Your task to perform on an android device: check android version Image 0: 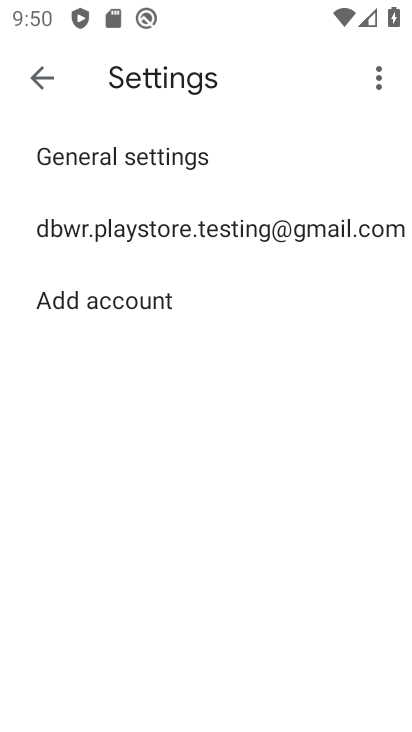
Step 0: press home button
Your task to perform on an android device: check android version Image 1: 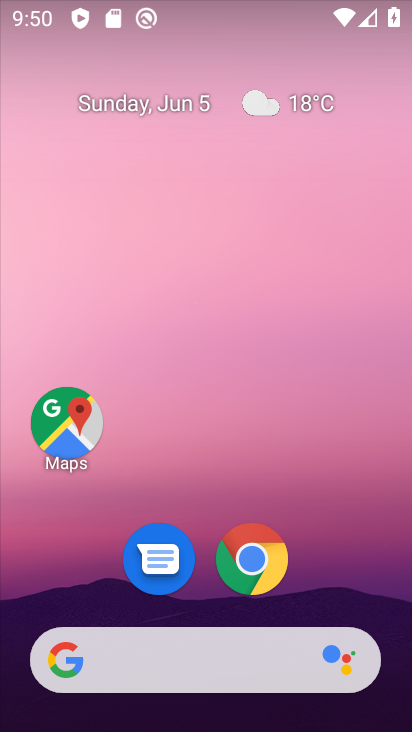
Step 1: drag from (346, 560) to (343, 89)
Your task to perform on an android device: check android version Image 2: 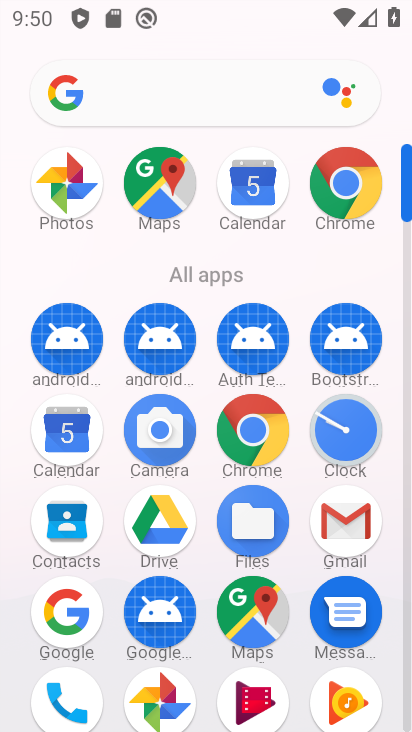
Step 2: drag from (199, 482) to (217, 126)
Your task to perform on an android device: check android version Image 3: 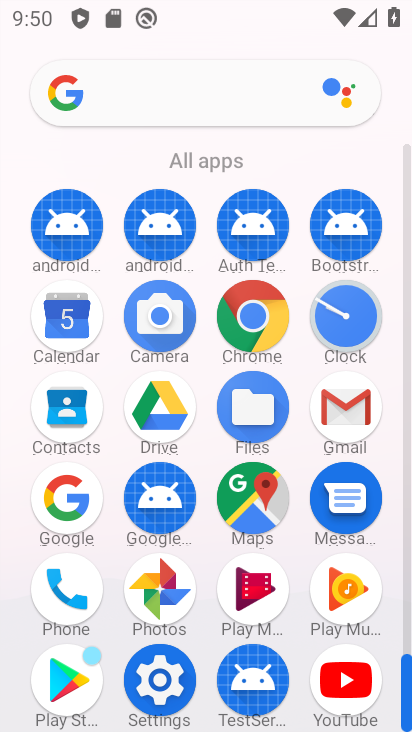
Step 3: click (159, 690)
Your task to perform on an android device: check android version Image 4: 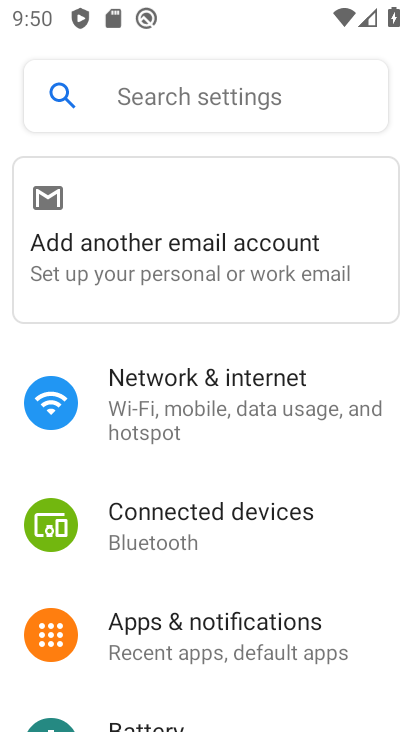
Step 4: drag from (347, 668) to (328, 296)
Your task to perform on an android device: check android version Image 5: 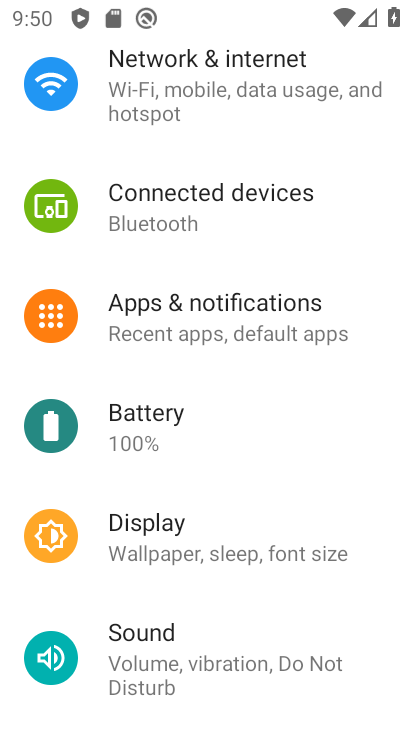
Step 5: drag from (352, 695) to (342, 220)
Your task to perform on an android device: check android version Image 6: 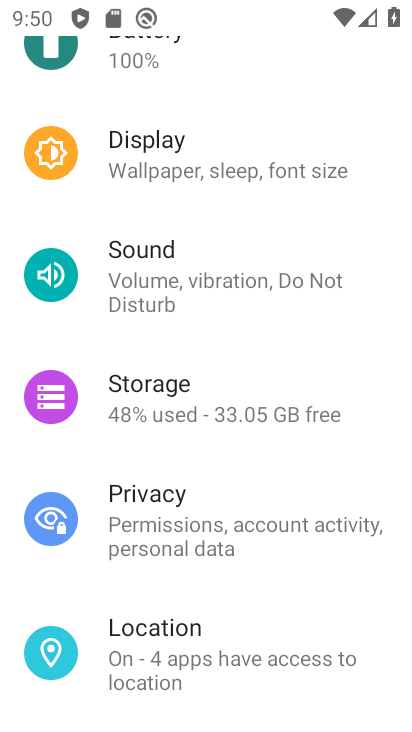
Step 6: drag from (374, 695) to (360, 241)
Your task to perform on an android device: check android version Image 7: 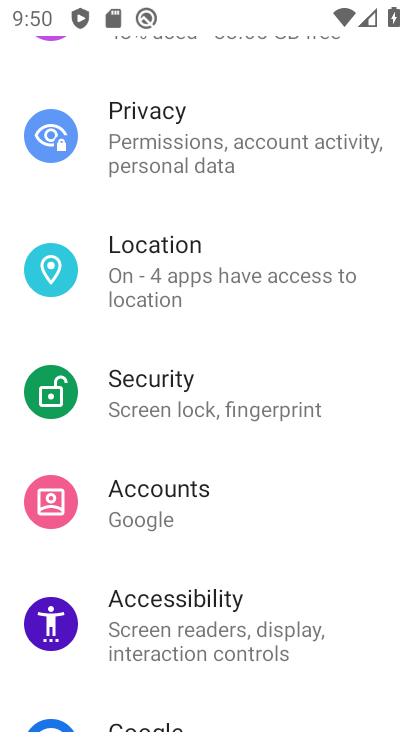
Step 7: drag from (370, 694) to (343, 250)
Your task to perform on an android device: check android version Image 8: 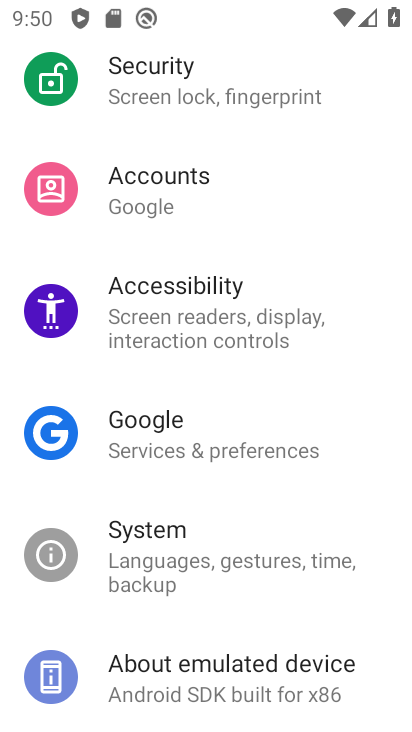
Step 8: drag from (332, 667) to (345, 204)
Your task to perform on an android device: check android version Image 9: 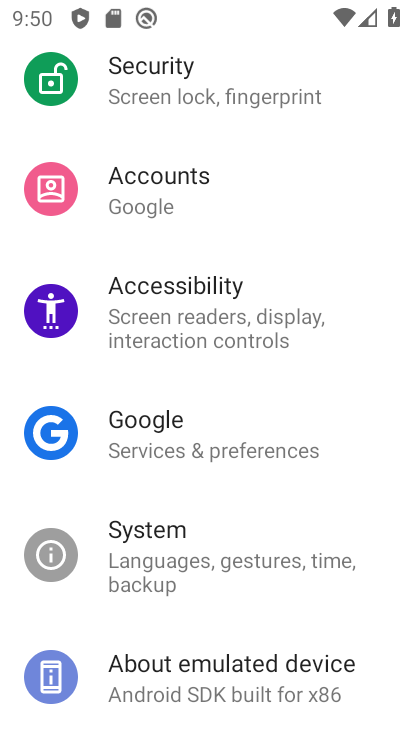
Step 9: click (288, 667)
Your task to perform on an android device: check android version Image 10: 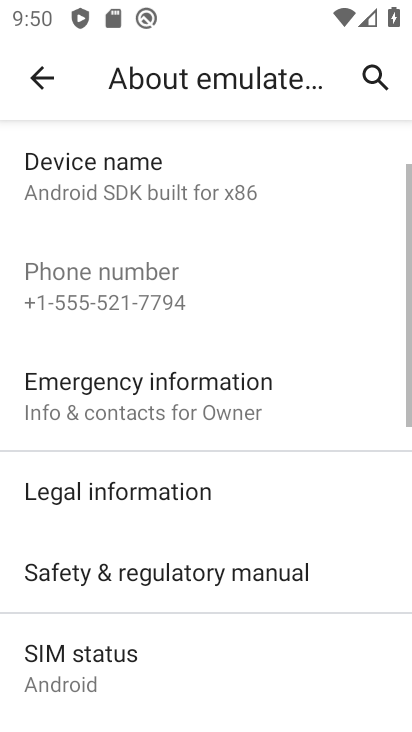
Step 10: drag from (302, 673) to (321, 303)
Your task to perform on an android device: check android version Image 11: 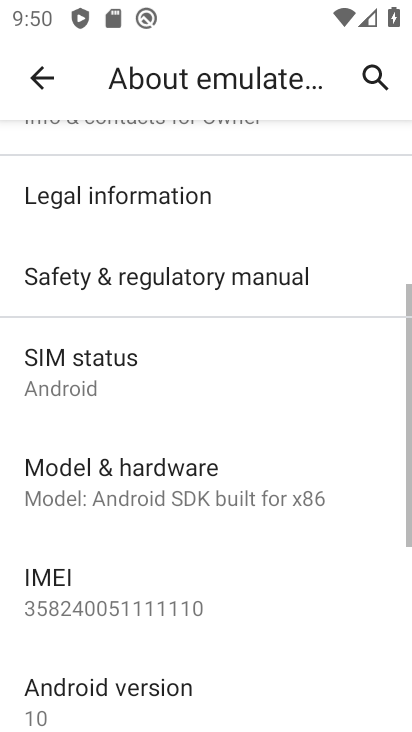
Step 11: drag from (314, 682) to (317, 287)
Your task to perform on an android device: check android version Image 12: 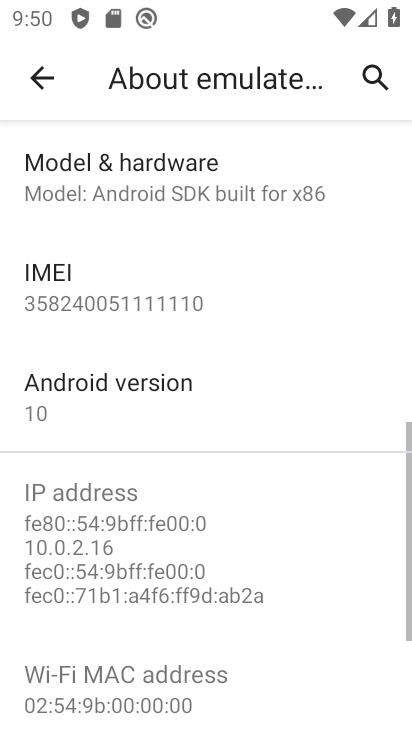
Step 12: click (125, 407)
Your task to perform on an android device: check android version Image 13: 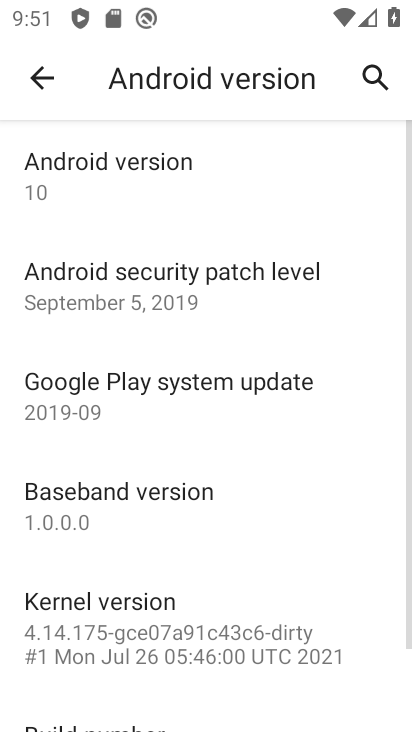
Step 13: task complete